Your task to perform on an android device: change alarm snooze length Image 0: 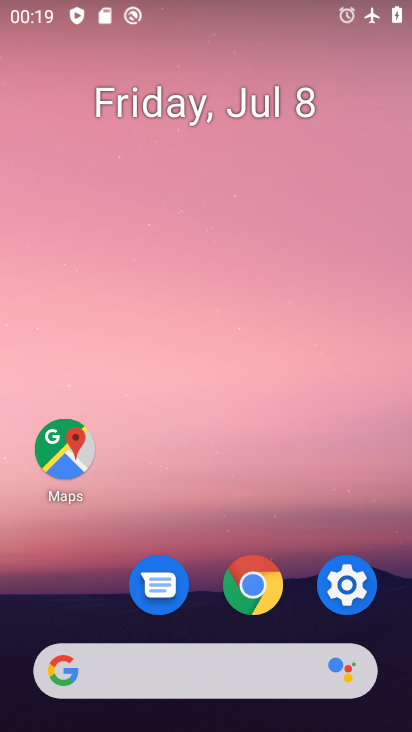
Step 0: drag from (269, 408) to (297, 140)
Your task to perform on an android device: change alarm snooze length Image 1: 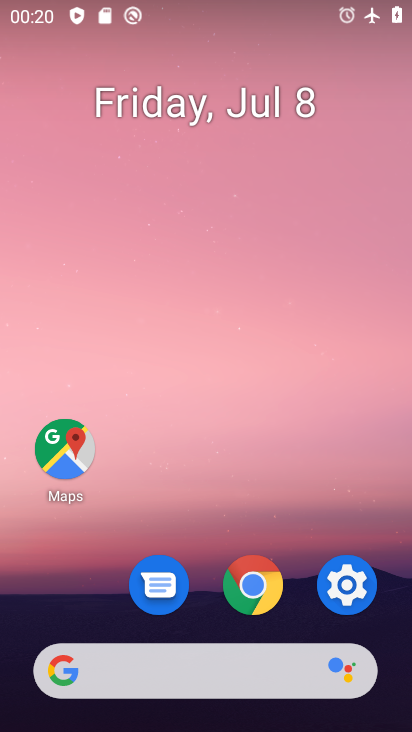
Step 1: drag from (243, 688) to (411, 67)
Your task to perform on an android device: change alarm snooze length Image 2: 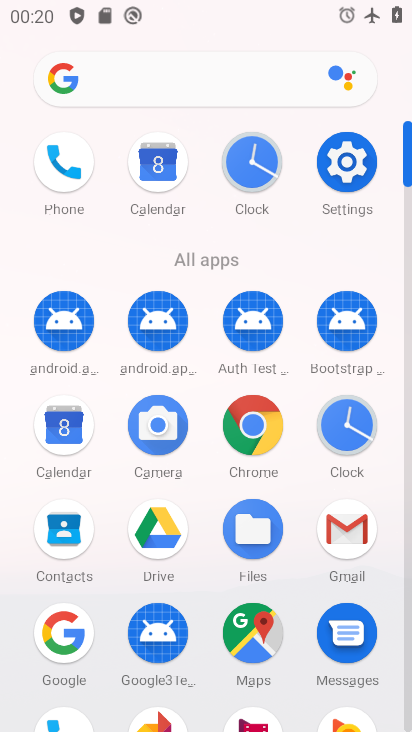
Step 2: click (246, 173)
Your task to perform on an android device: change alarm snooze length Image 3: 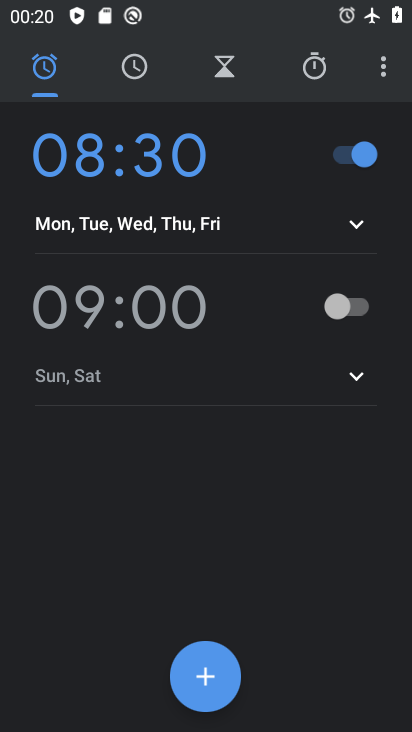
Step 3: click (376, 66)
Your task to perform on an android device: change alarm snooze length Image 4: 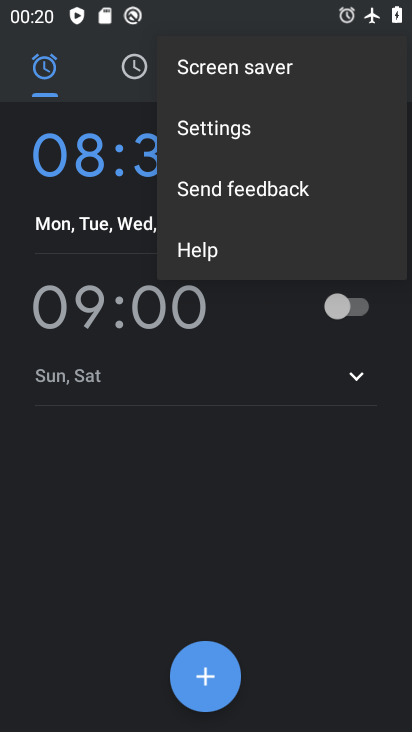
Step 4: click (246, 126)
Your task to perform on an android device: change alarm snooze length Image 5: 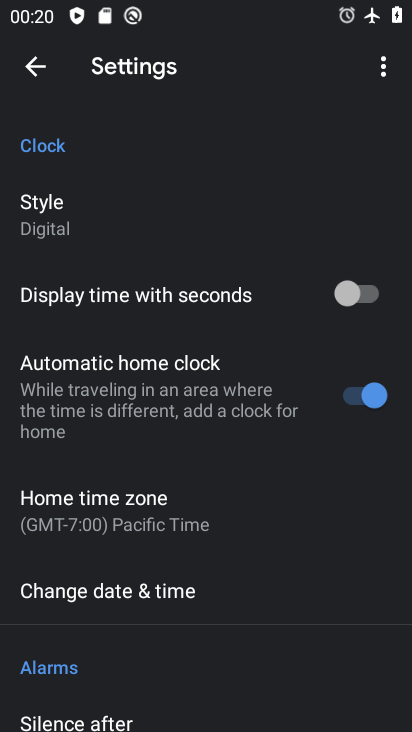
Step 5: drag from (213, 631) to (258, 422)
Your task to perform on an android device: change alarm snooze length Image 6: 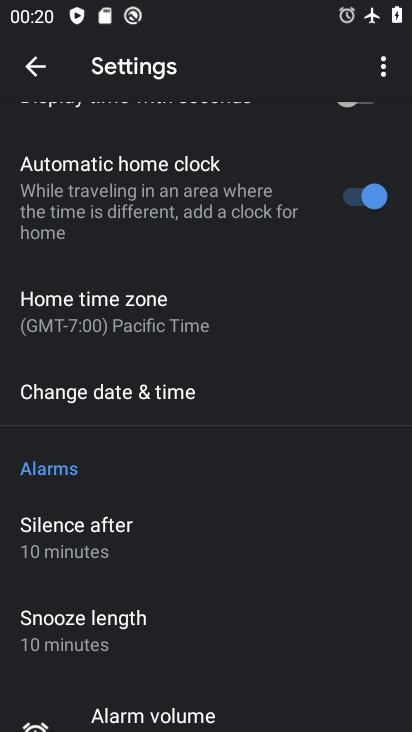
Step 6: click (103, 622)
Your task to perform on an android device: change alarm snooze length Image 7: 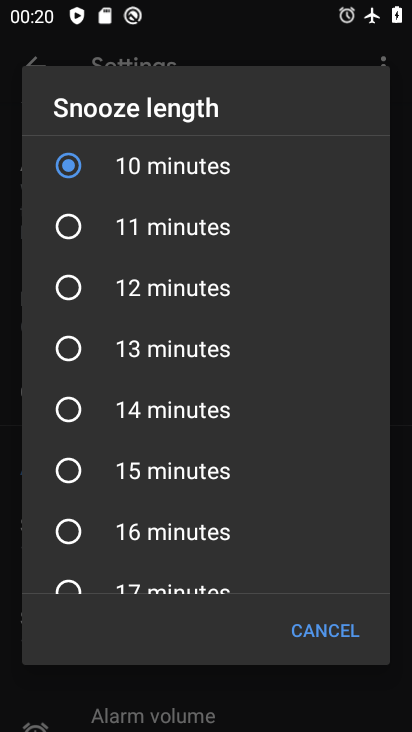
Step 7: click (163, 418)
Your task to perform on an android device: change alarm snooze length Image 8: 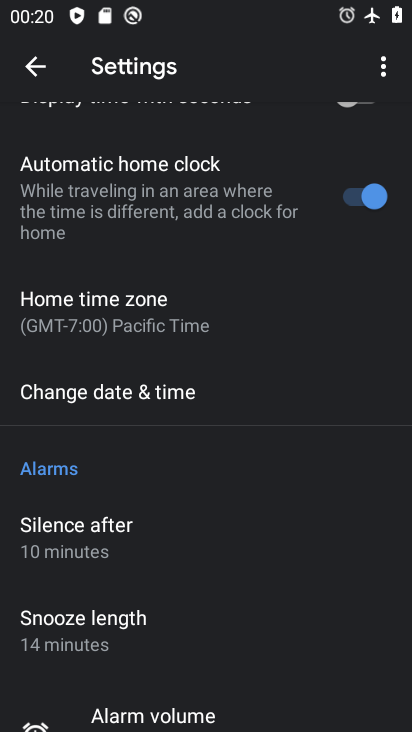
Step 8: task complete